Your task to perform on an android device: Open the web browser Image 0: 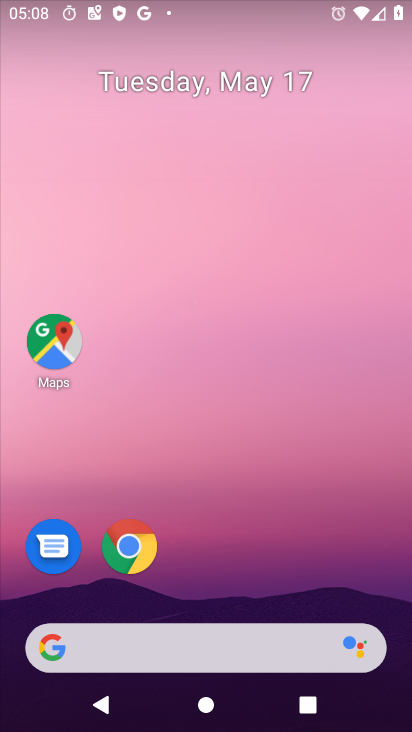
Step 0: click (140, 543)
Your task to perform on an android device: Open the web browser Image 1: 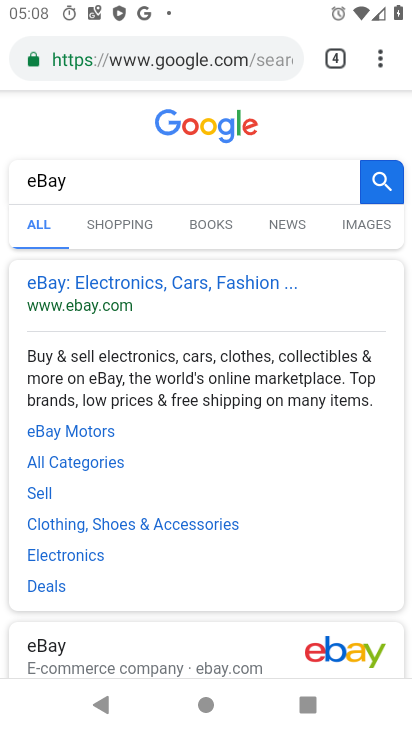
Step 1: task complete